Your task to perform on an android device: toggle sleep mode Image 0: 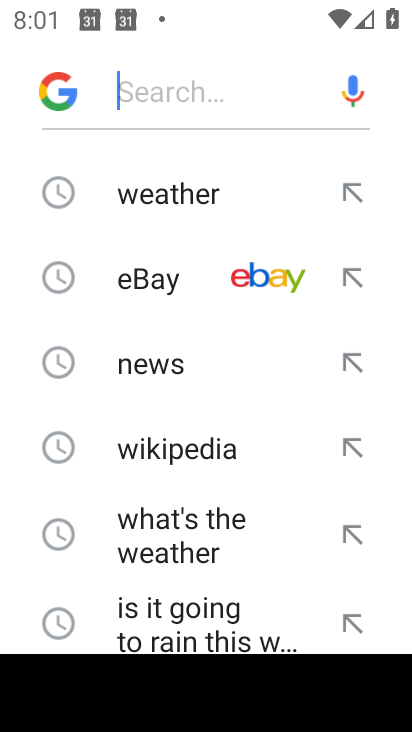
Step 0: press home button
Your task to perform on an android device: toggle sleep mode Image 1: 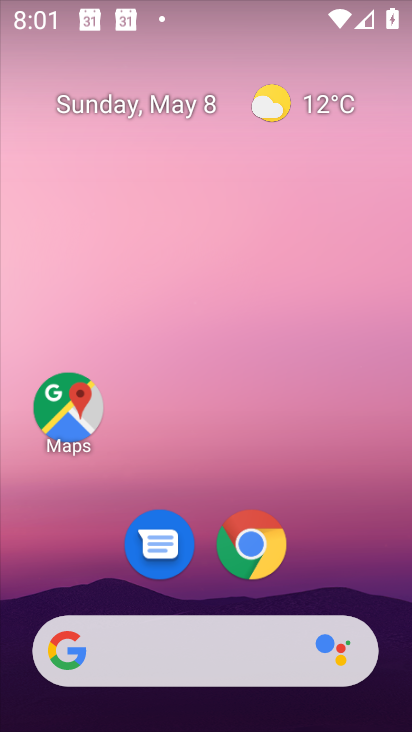
Step 1: drag from (341, 542) to (140, 17)
Your task to perform on an android device: toggle sleep mode Image 2: 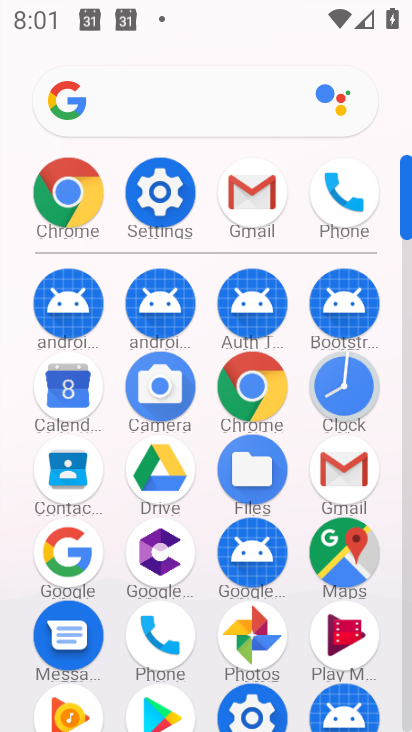
Step 2: click (160, 192)
Your task to perform on an android device: toggle sleep mode Image 3: 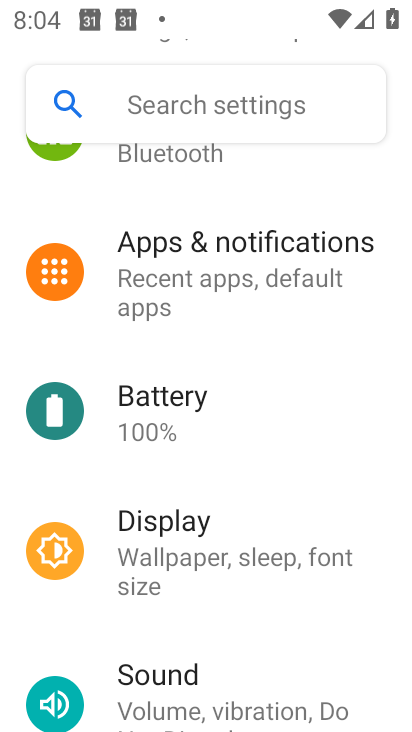
Step 3: click (179, 539)
Your task to perform on an android device: toggle sleep mode Image 4: 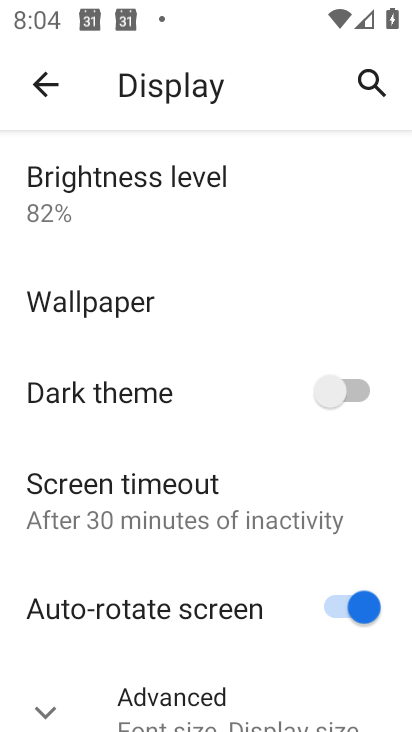
Step 4: task complete